Your task to perform on an android device: Search for pizza restaurants on Maps Image 0: 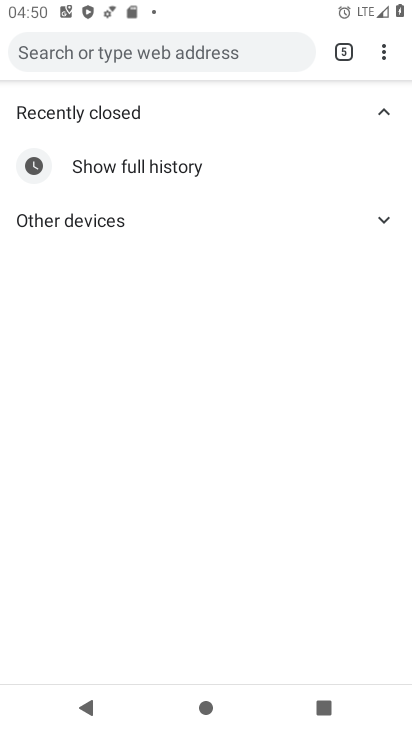
Step 0: press home button
Your task to perform on an android device: Search for pizza restaurants on Maps Image 1: 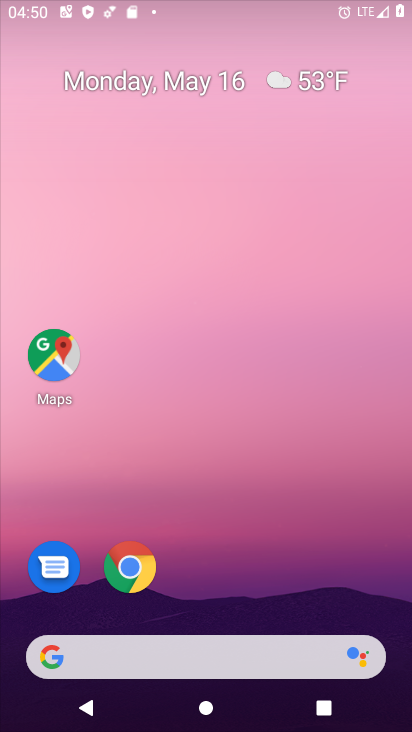
Step 1: drag from (225, 698) to (277, 59)
Your task to perform on an android device: Search for pizza restaurants on Maps Image 2: 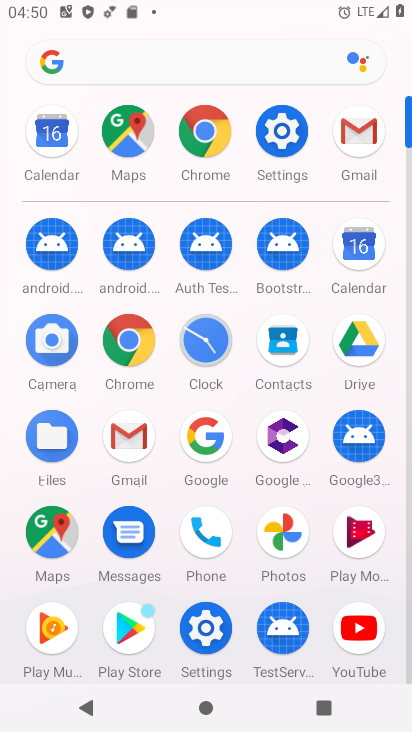
Step 2: click (57, 551)
Your task to perform on an android device: Search for pizza restaurants on Maps Image 3: 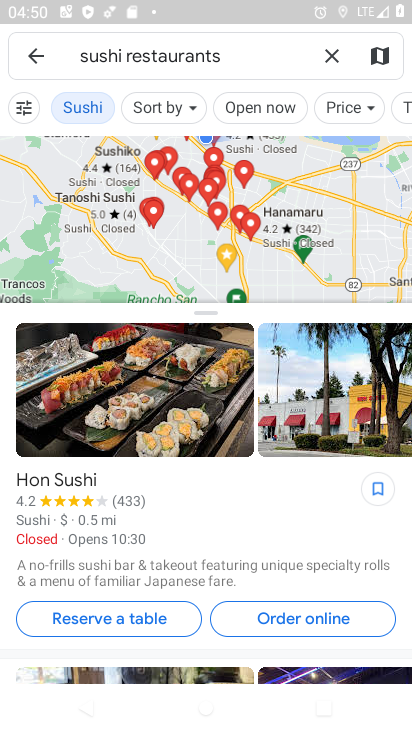
Step 3: click (326, 60)
Your task to perform on an android device: Search for pizza restaurants on Maps Image 4: 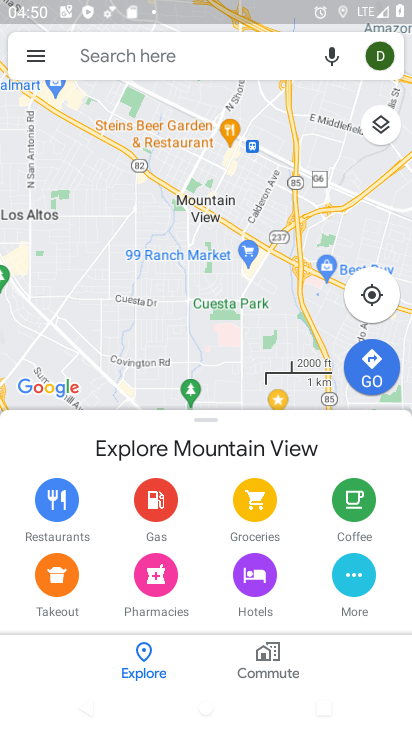
Step 4: click (244, 52)
Your task to perform on an android device: Search for pizza restaurants on Maps Image 5: 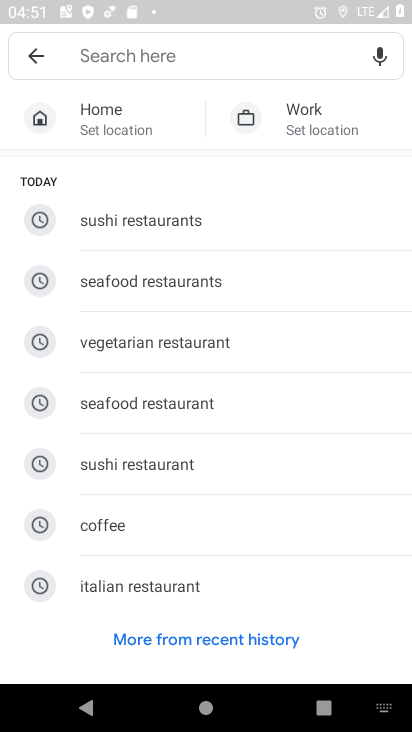
Step 5: type "pizza restaurant"
Your task to perform on an android device: Search for pizza restaurants on Maps Image 6: 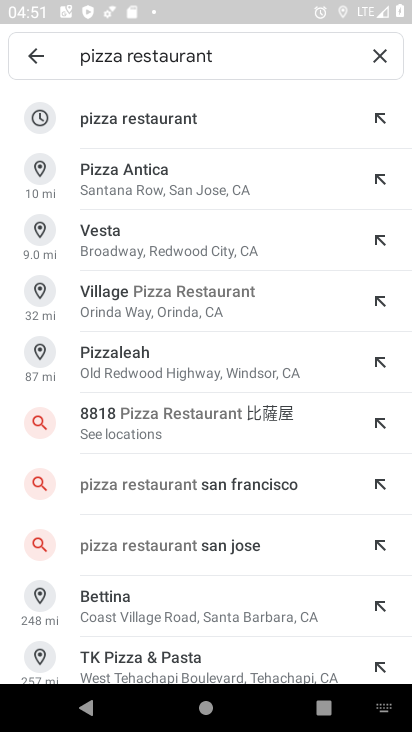
Step 6: click (169, 134)
Your task to perform on an android device: Search for pizza restaurants on Maps Image 7: 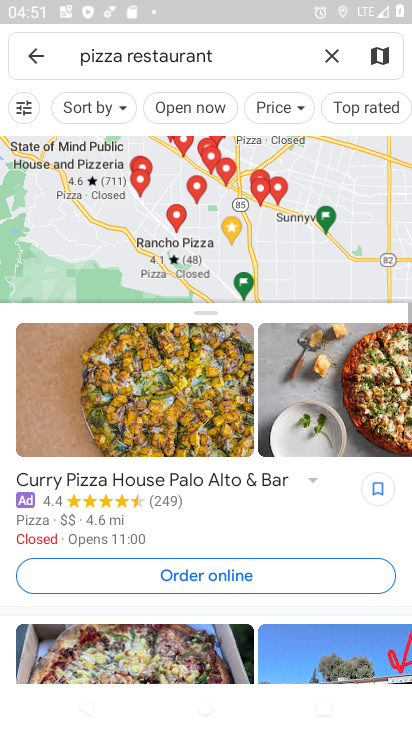
Step 7: task complete